Your task to perform on an android device: When is my next meeting? Image 0: 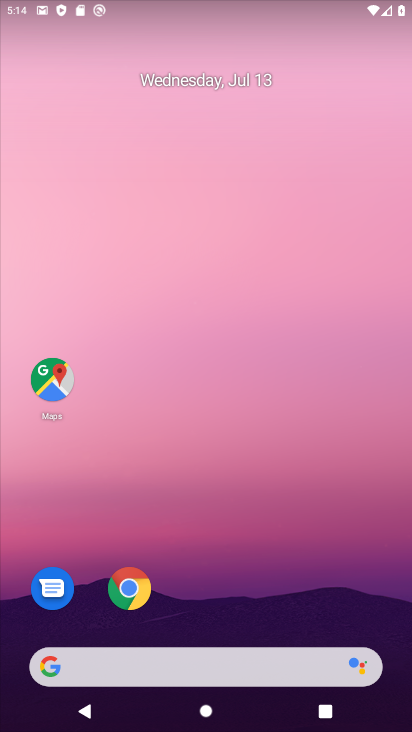
Step 0: drag from (202, 578) to (202, 252)
Your task to perform on an android device: When is my next meeting? Image 1: 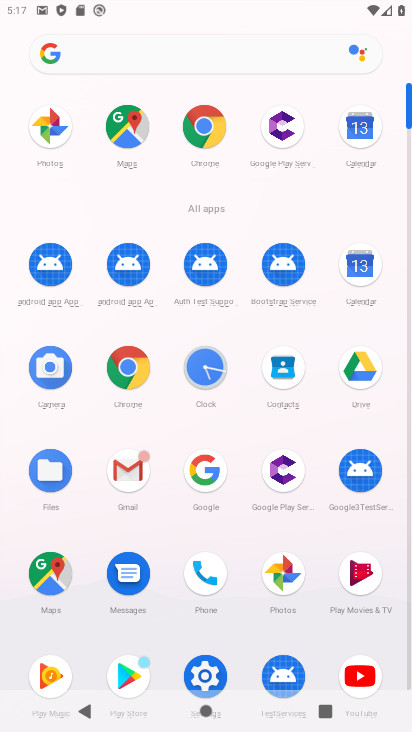
Step 1: click (211, 671)
Your task to perform on an android device: When is my next meeting? Image 2: 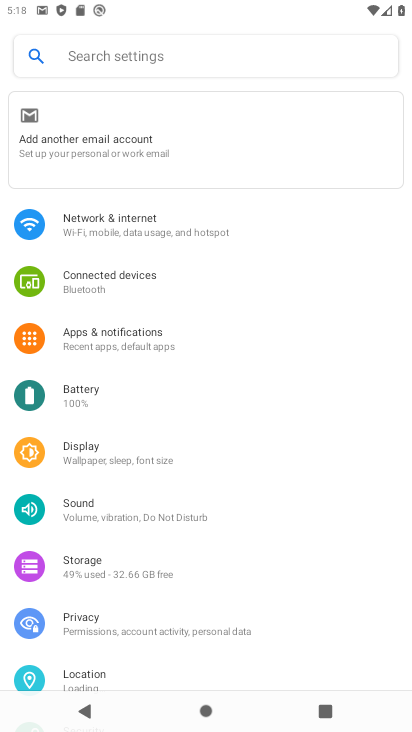
Step 2: press back button
Your task to perform on an android device: When is my next meeting? Image 3: 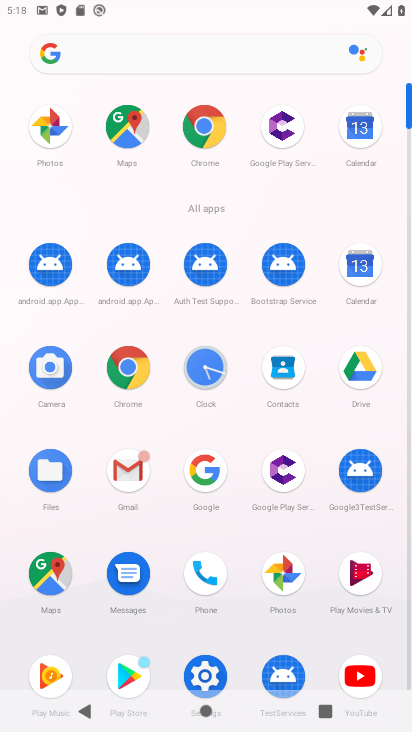
Step 3: click (200, 669)
Your task to perform on an android device: When is my next meeting? Image 4: 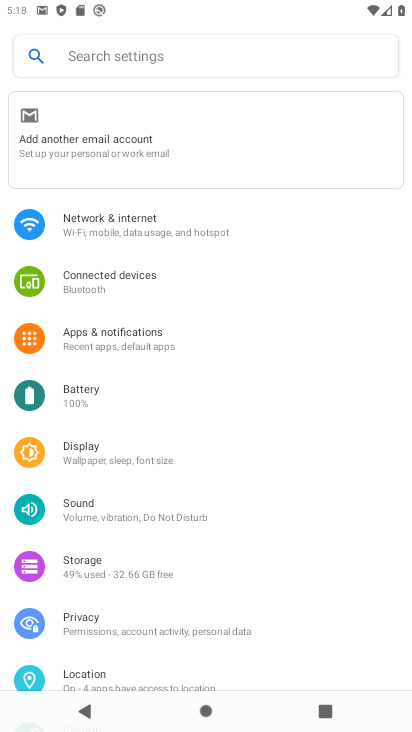
Step 4: press home button
Your task to perform on an android device: When is my next meeting? Image 5: 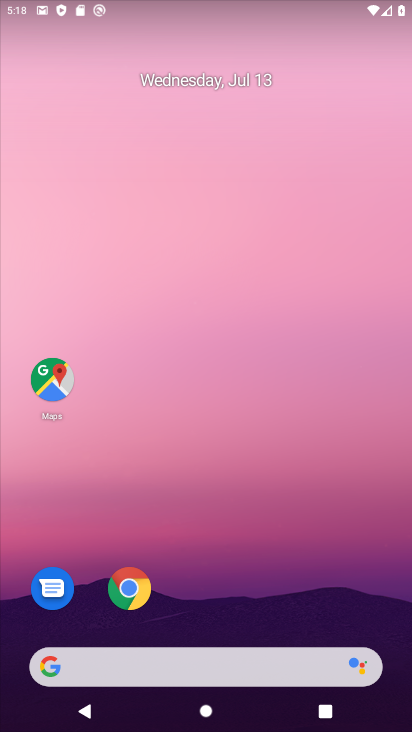
Step 5: drag from (183, 390) to (182, 60)
Your task to perform on an android device: When is my next meeting? Image 6: 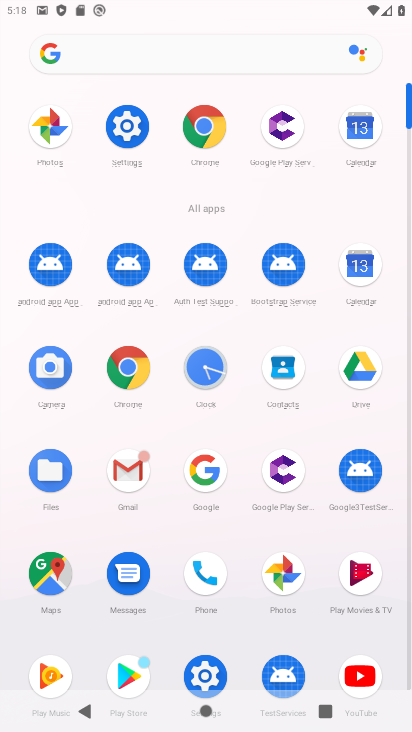
Step 6: click (361, 293)
Your task to perform on an android device: When is my next meeting? Image 7: 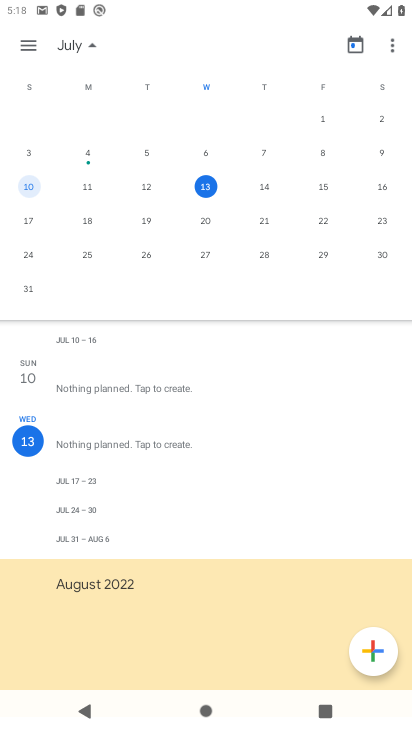
Step 7: task complete